Your task to perform on an android device: Search for electric lawnmowers on Home Depot Image 0: 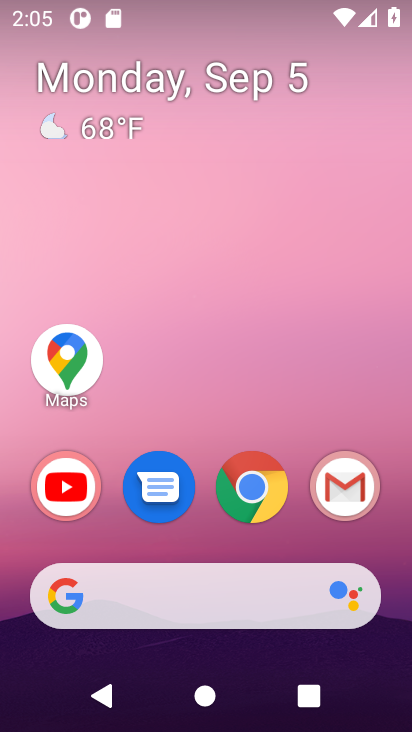
Step 0: click (244, 500)
Your task to perform on an android device: Search for electric lawnmowers on Home Depot Image 1: 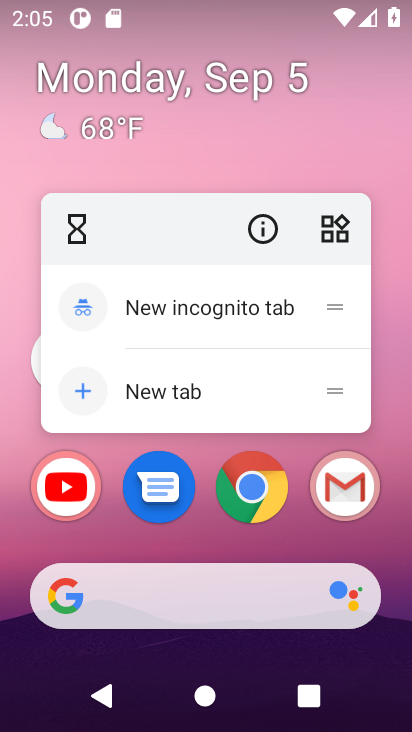
Step 1: click (244, 500)
Your task to perform on an android device: Search for electric lawnmowers on Home Depot Image 2: 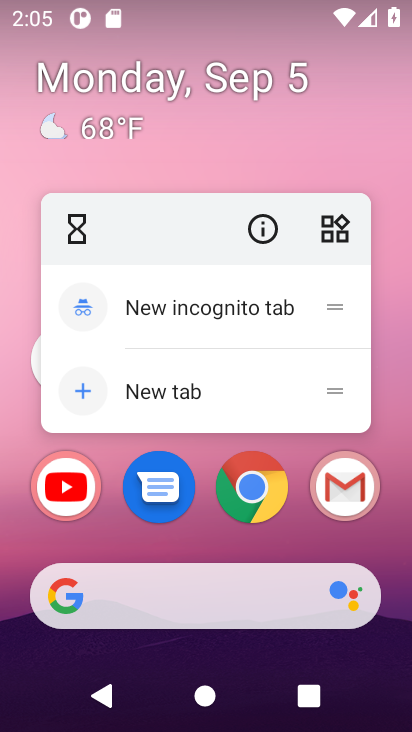
Step 2: click (244, 500)
Your task to perform on an android device: Search for electric lawnmowers on Home Depot Image 3: 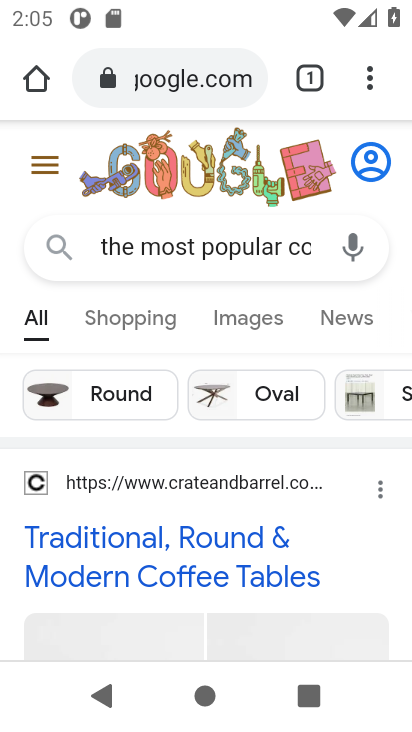
Step 3: click (205, 66)
Your task to perform on an android device: Search for electric lawnmowers on Home Depot Image 4: 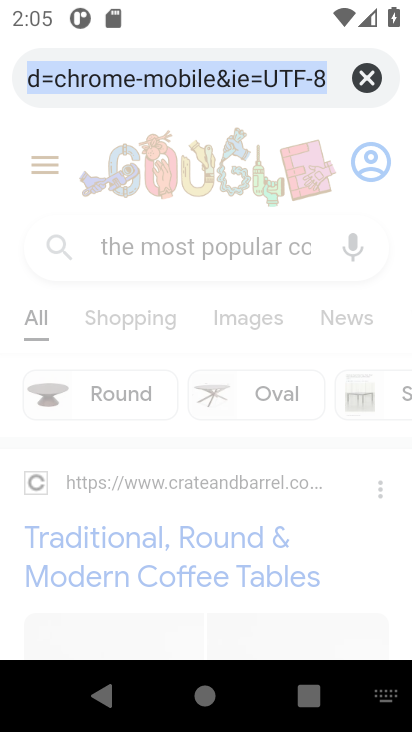
Step 4: click (362, 81)
Your task to perform on an android device: Search for electric lawnmowers on Home Depot Image 5: 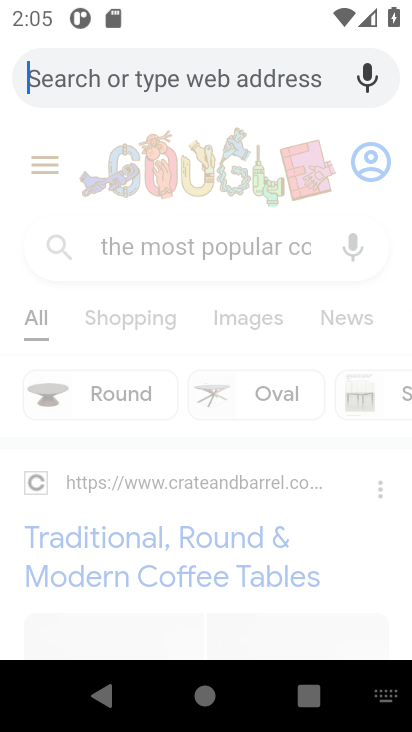
Step 5: type "electric lawnmowers on Home Depot"
Your task to perform on an android device: Search for electric lawnmowers on Home Depot Image 6: 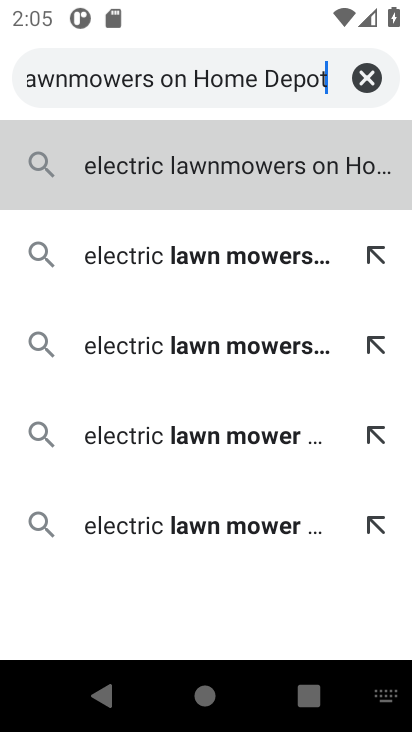
Step 6: click (189, 162)
Your task to perform on an android device: Search for electric lawnmowers on Home Depot Image 7: 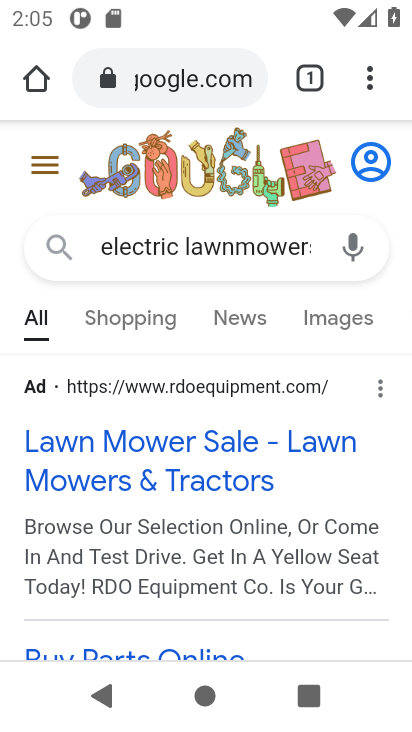
Step 7: task complete